Your task to perform on an android device: Turn on the flashlight Image 0: 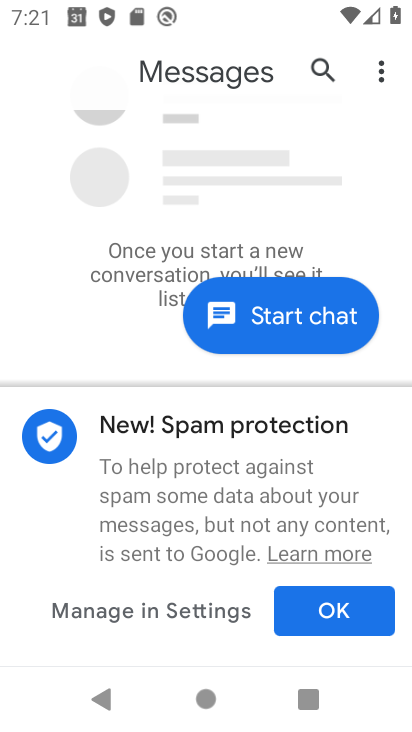
Step 0: press home button
Your task to perform on an android device: Turn on the flashlight Image 1: 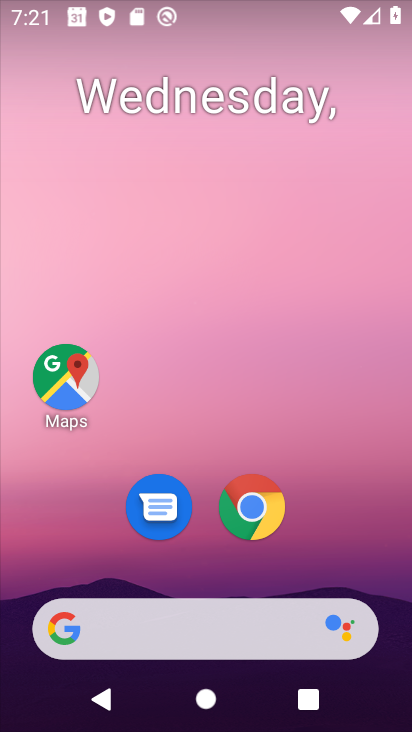
Step 1: drag from (259, 660) to (222, 198)
Your task to perform on an android device: Turn on the flashlight Image 2: 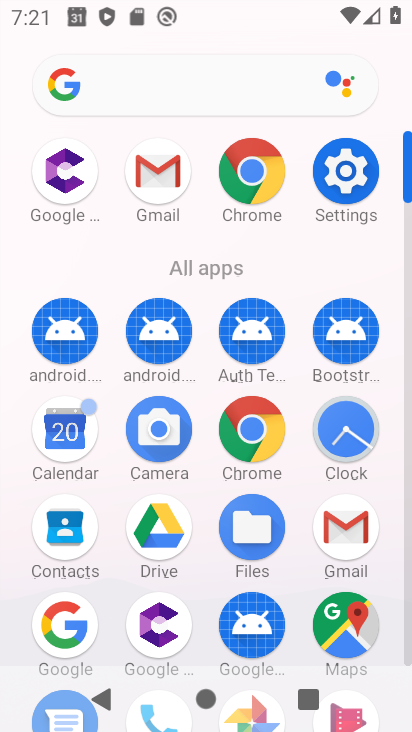
Step 2: click (352, 154)
Your task to perform on an android device: Turn on the flashlight Image 3: 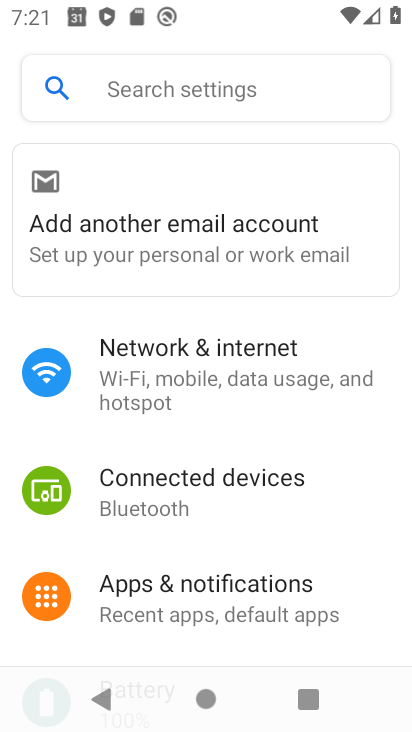
Step 3: click (187, 80)
Your task to perform on an android device: Turn on the flashlight Image 4: 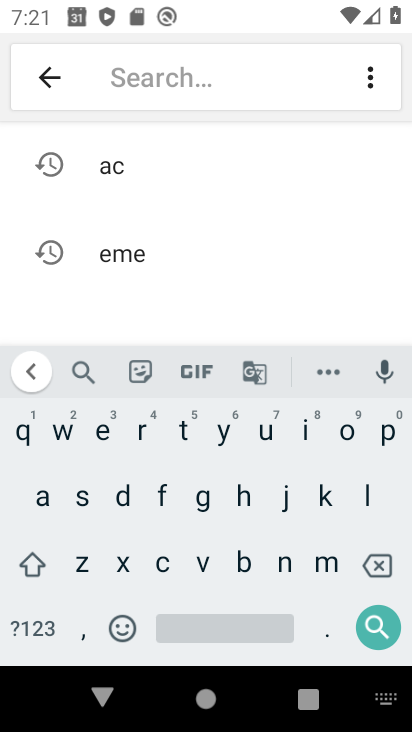
Step 4: click (157, 500)
Your task to perform on an android device: Turn on the flashlight Image 5: 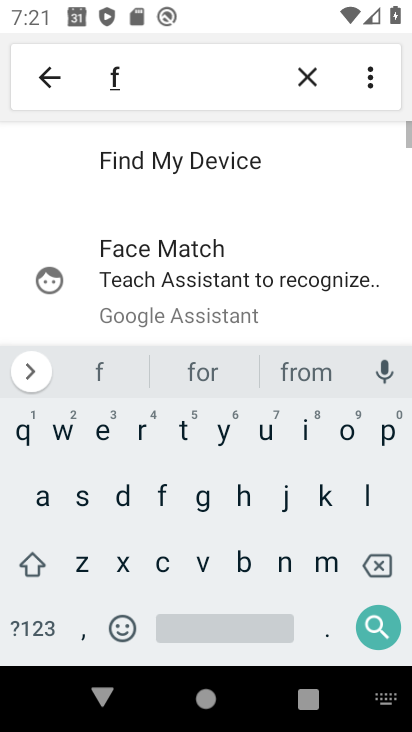
Step 5: click (362, 495)
Your task to perform on an android device: Turn on the flashlight Image 6: 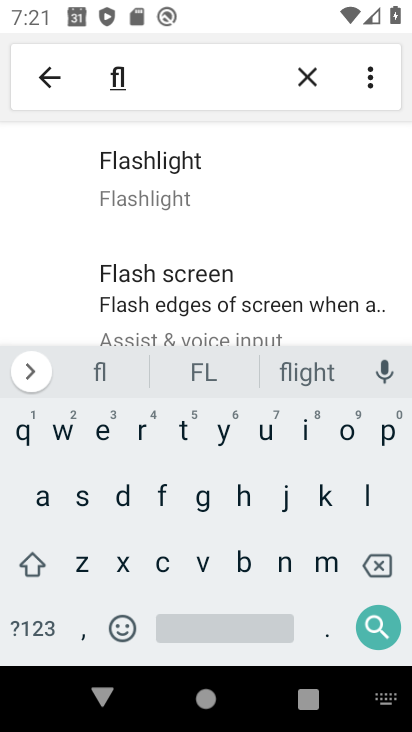
Step 6: click (182, 191)
Your task to perform on an android device: Turn on the flashlight Image 7: 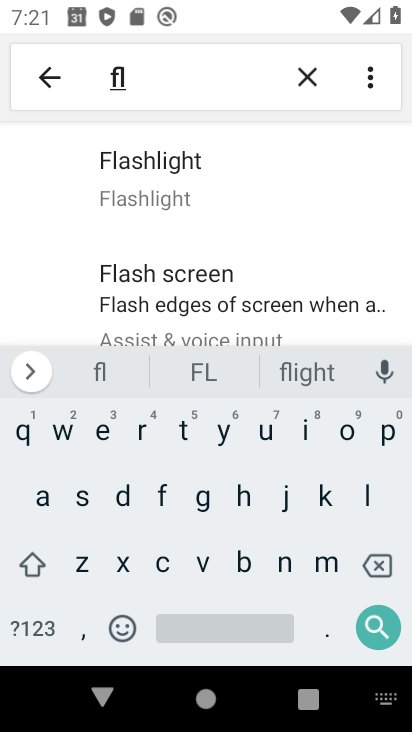
Step 7: task complete